Your task to perform on an android device: turn notification dots on Image 0: 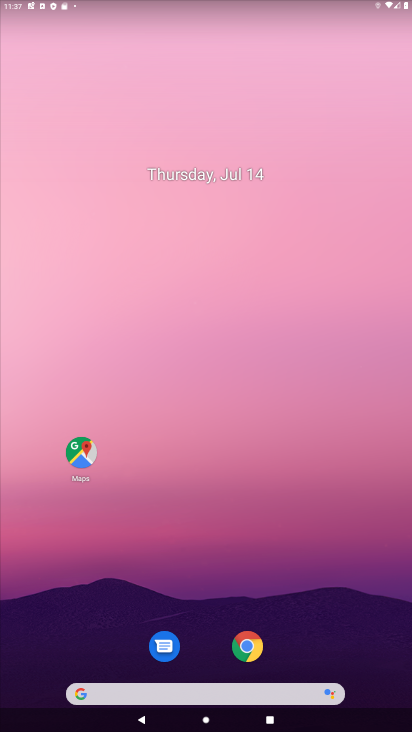
Step 0: drag from (200, 643) to (209, 250)
Your task to perform on an android device: turn notification dots on Image 1: 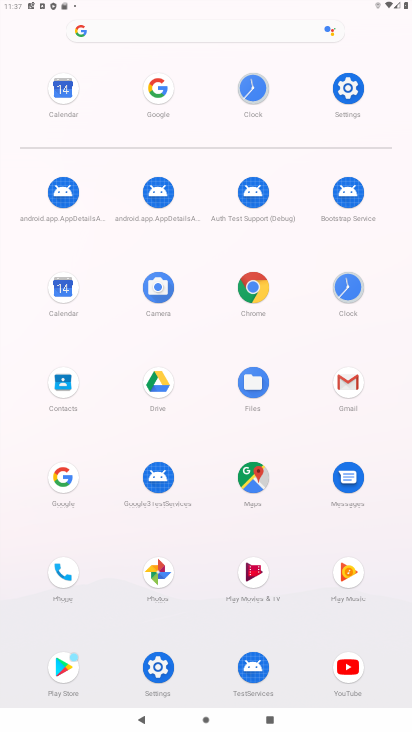
Step 1: click (340, 102)
Your task to perform on an android device: turn notification dots on Image 2: 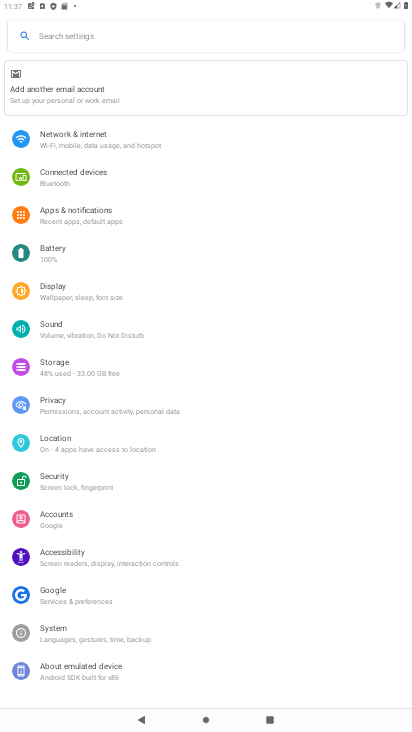
Step 2: click (126, 230)
Your task to perform on an android device: turn notification dots on Image 3: 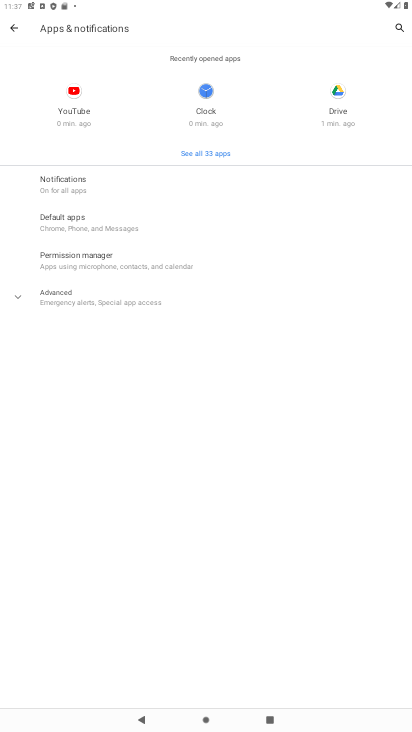
Step 3: click (125, 191)
Your task to perform on an android device: turn notification dots on Image 4: 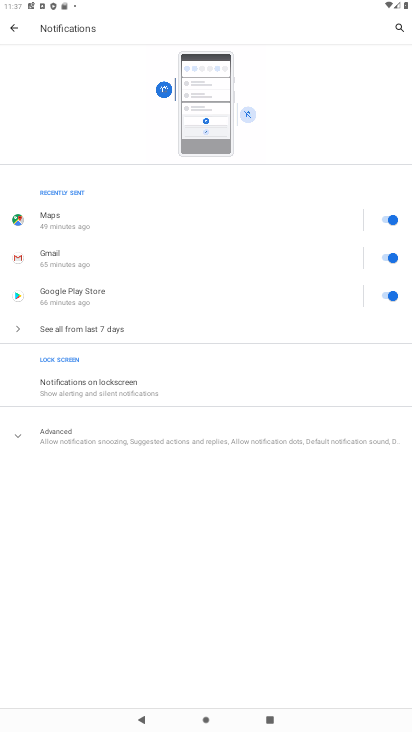
Step 4: click (123, 434)
Your task to perform on an android device: turn notification dots on Image 5: 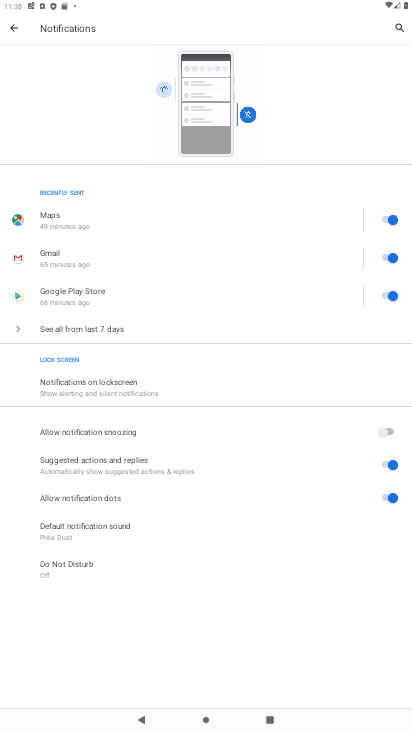
Step 5: task complete